Your task to perform on an android device: visit the assistant section in the google photos Image 0: 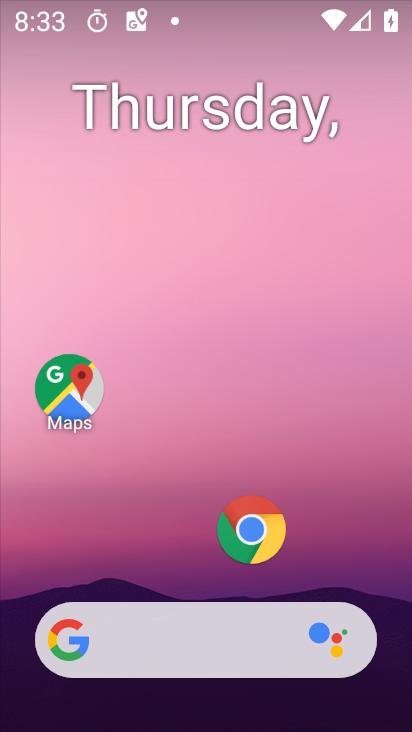
Step 0: press home button
Your task to perform on an android device: visit the assistant section in the google photos Image 1: 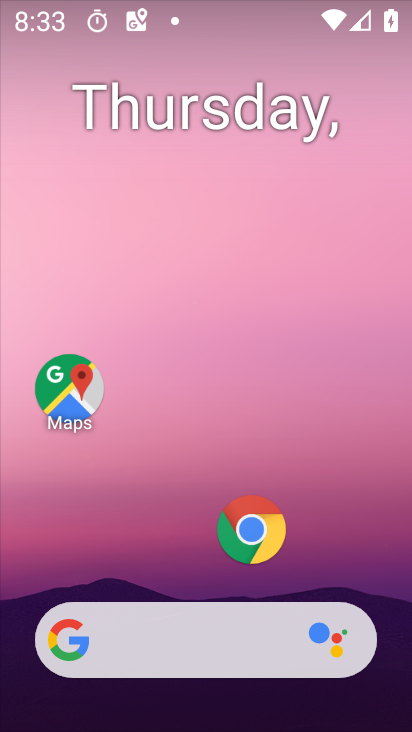
Step 1: drag from (196, 566) to (221, 49)
Your task to perform on an android device: visit the assistant section in the google photos Image 2: 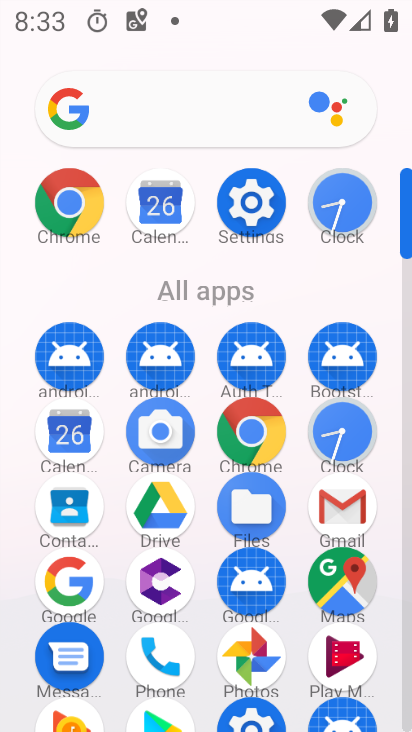
Step 2: click (249, 648)
Your task to perform on an android device: visit the assistant section in the google photos Image 3: 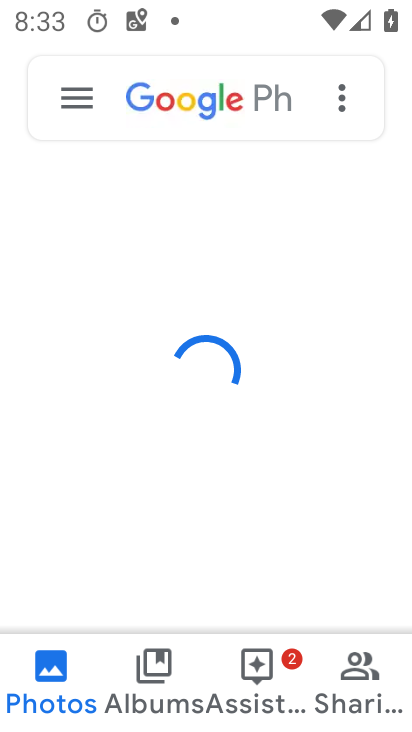
Step 3: click (254, 657)
Your task to perform on an android device: visit the assistant section in the google photos Image 4: 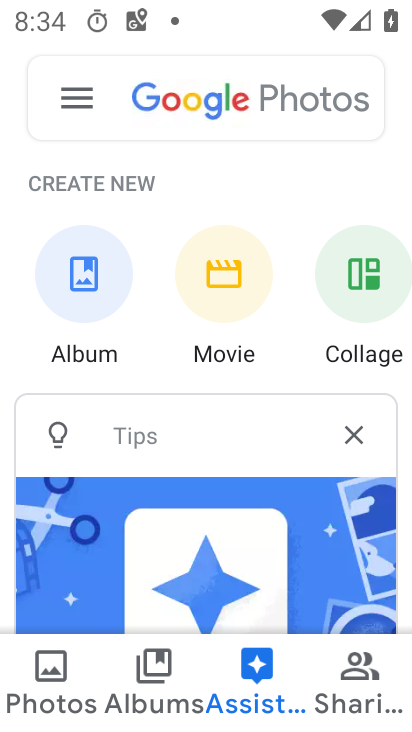
Step 4: task complete